Your task to perform on an android device: Open Maps and search for coffee Image 0: 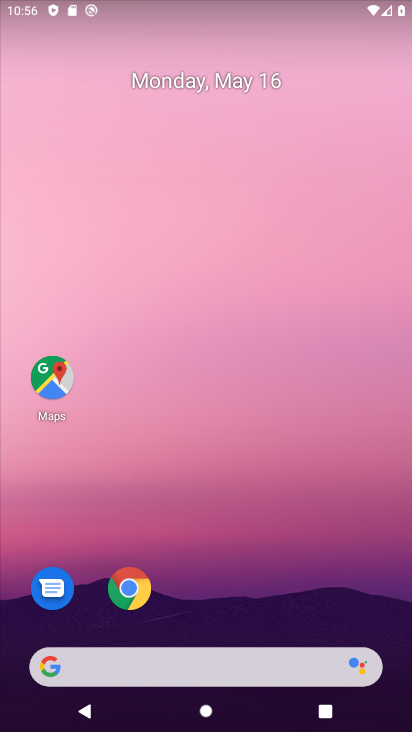
Step 0: drag from (368, 618) to (363, 182)
Your task to perform on an android device: Open Maps and search for coffee Image 1: 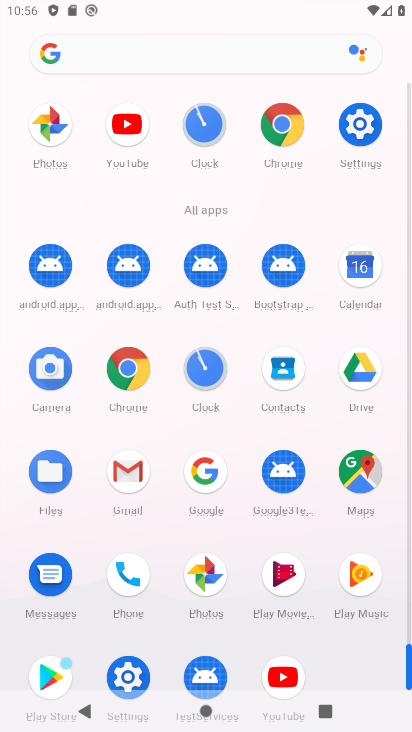
Step 1: click (367, 471)
Your task to perform on an android device: Open Maps and search for coffee Image 2: 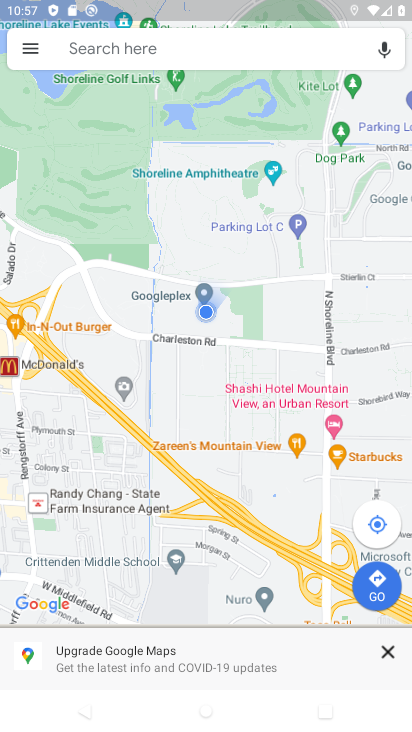
Step 2: click (171, 52)
Your task to perform on an android device: Open Maps and search for coffee Image 3: 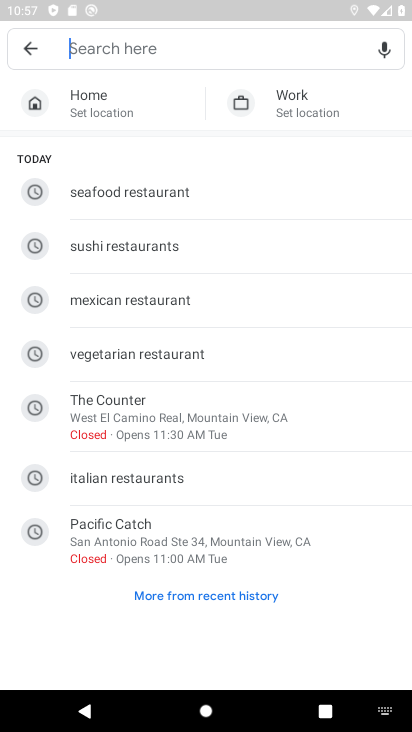
Step 3: type "coffee"
Your task to perform on an android device: Open Maps and search for coffee Image 4: 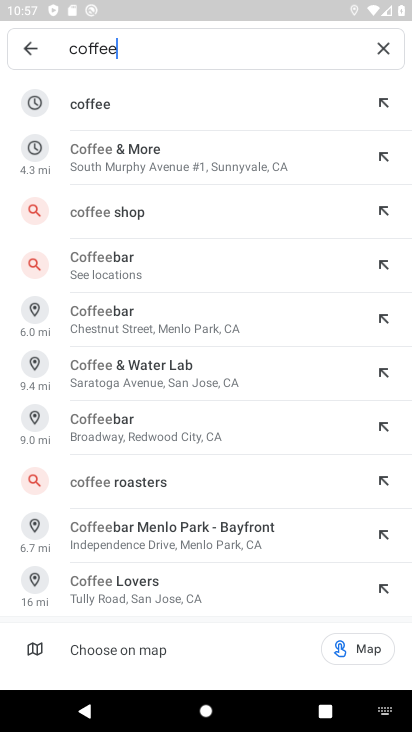
Step 4: click (248, 99)
Your task to perform on an android device: Open Maps and search for coffee Image 5: 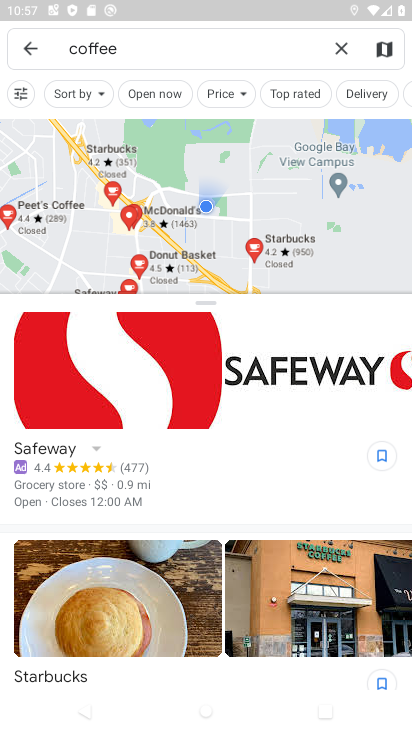
Step 5: task complete